Your task to perform on an android device: remove spam from my inbox in the gmail app Image 0: 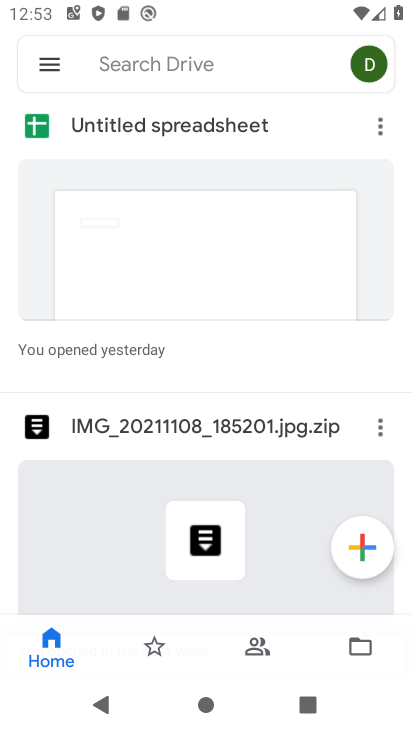
Step 0: press home button
Your task to perform on an android device: remove spam from my inbox in the gmail app Image 1: 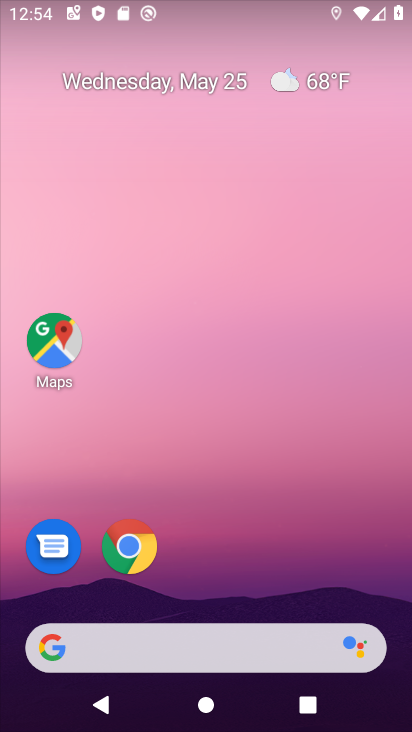
Step 1: drag from (253, 564) to (290, 0)
Your task to perform on an android device: remove spam from my inbox in the gmail app Image 2: 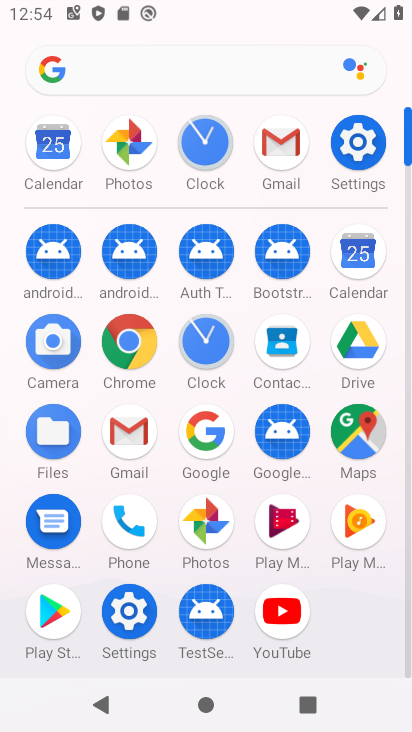
Step 2: click (298, 153)
Your task to perform on an android device: remove spam from my inbox in the gmail app Image 3: 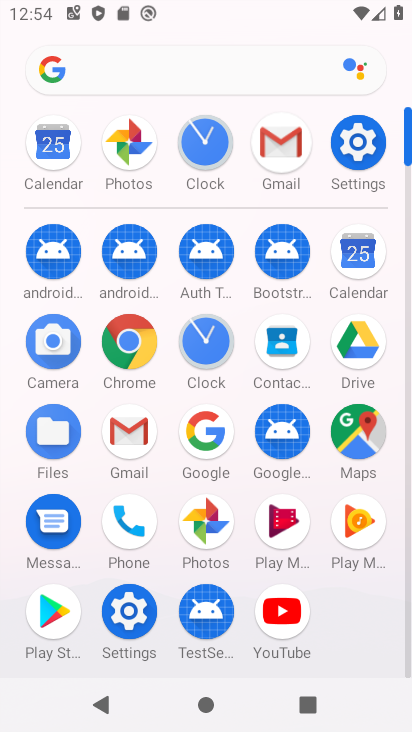
Step 3: task complete